Your task to perform on an android device: set an alarm Image 0: 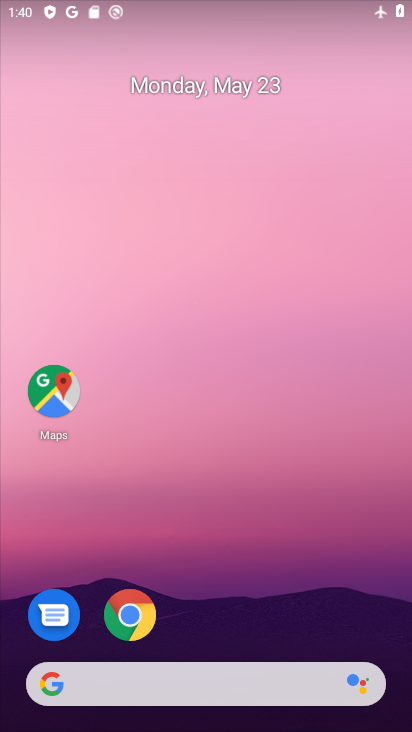
Step 0: drag from (188, 653) to (218, 69)
Your task to perform on an android device: set an alarm Image 1: 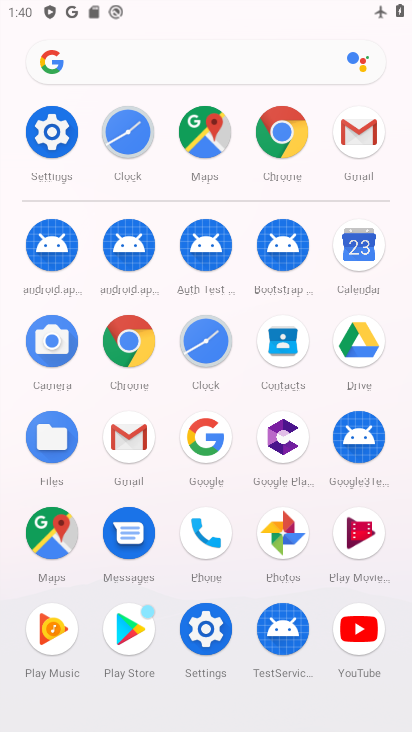
Step 1: click (197, 347)
Your task to perform on an android device: set an alarm Image 2: 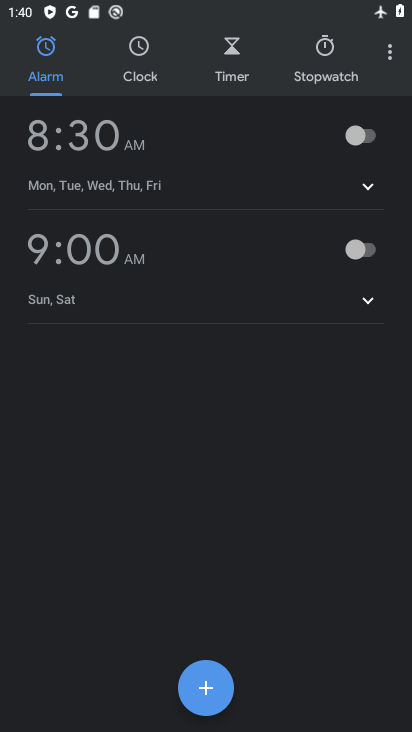
Step 2: click (44, 57)
Your task to perform on an android device: set an alarm Image 3: 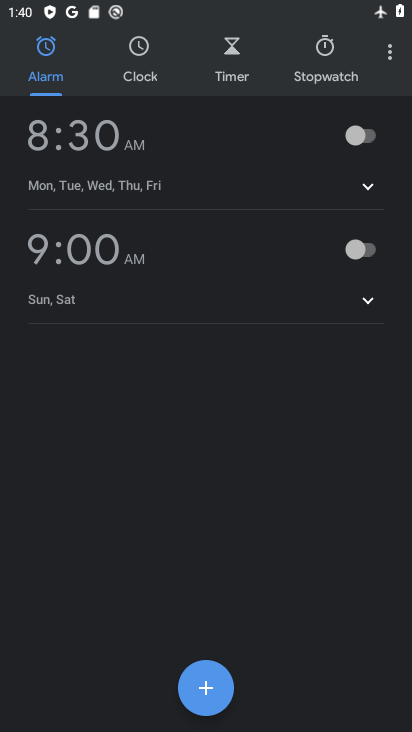
Step 3: task complete